Your task to perform on an android device: Go to wifi settings Image 0: 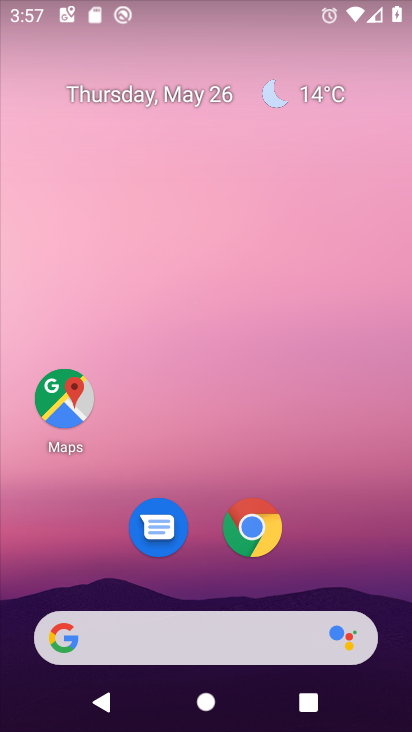
Step 0: drag from (378, 584) to (302, 204)
Your task to perform on an android device: Go to wifi settings Image 1: 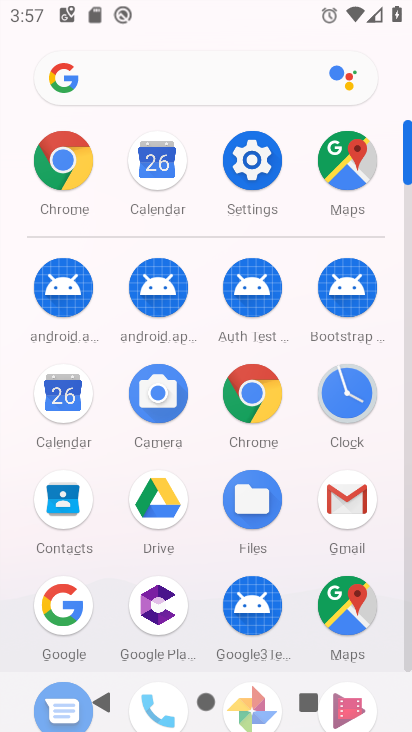
Step 1: click (254, 174)
Your task to perform on an android device: Go to wifi settings Image 2: 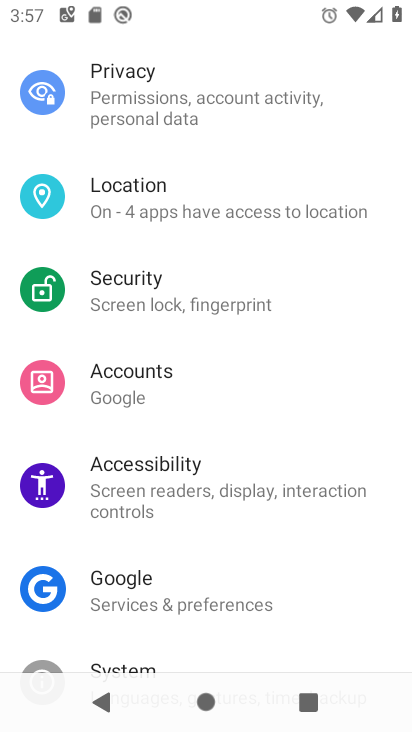
Step 2: drag from (195, 140) to (215, 640)
Your task to perform on an android device: Go to wifi settings Image 3: 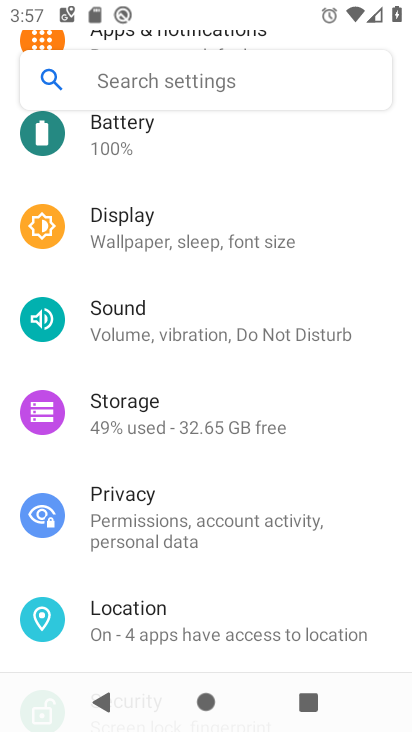
Step 3: drag from (190, 167) to (171, 599)
Your task to perform on an android device: Go to wifi settings Image 4: 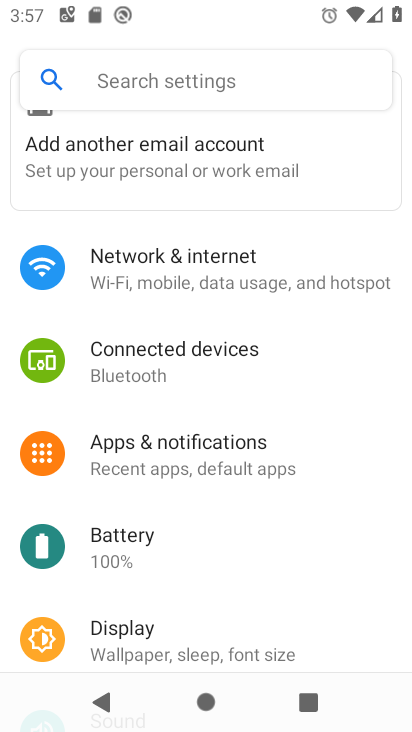
Step 4: click (178, 289)
Your task to perform on an android device: Go to wifi settings Image 5: 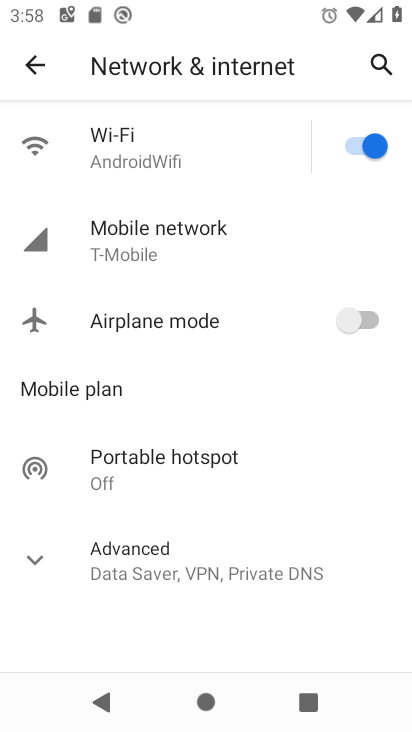
Step 5: click (147, 133)
Your task to perform on an android device: Go to wifi settings Image 6: 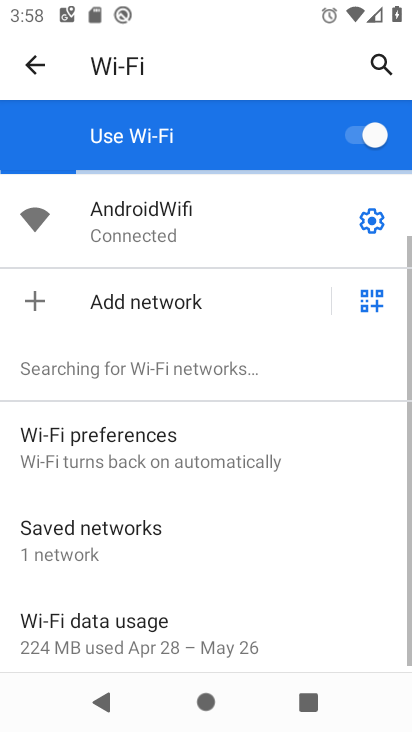
Step 6: task complete